Your task to perform on an android device: read, delete, or share a saved page in the chrome app Image 0: 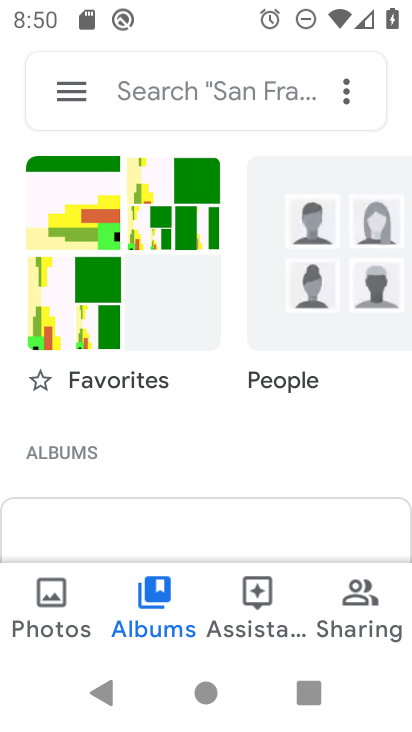
Step 0: press home button
Your task to perform on an android device: read, delete, or share a saved page in the chrome app Image 1: 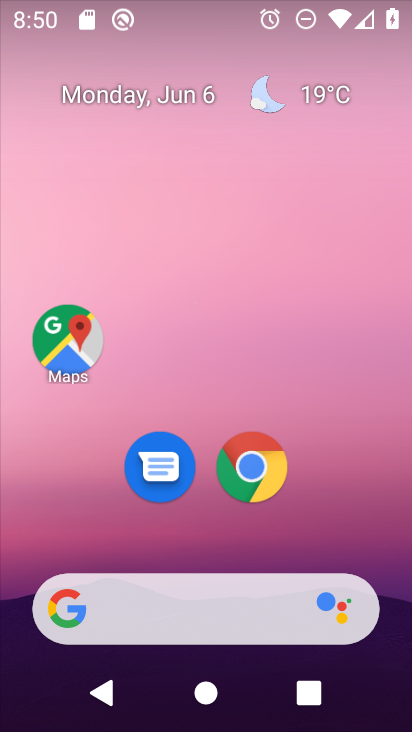
Step 1: drag from (358, 532) to (353, 136)
Your task to perform on an android device: read, delete, or share a saved page in the chrome app Image 2: 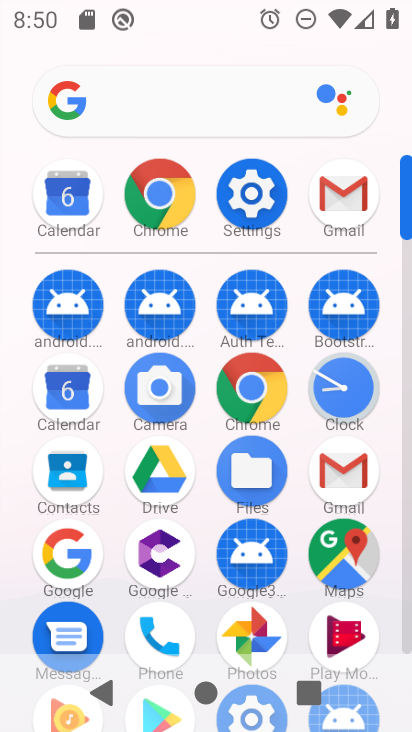
Step 2: click (265, 398)
Your task to perform on an android device: read, delete, or share a saved page in the chrome app Image 3: 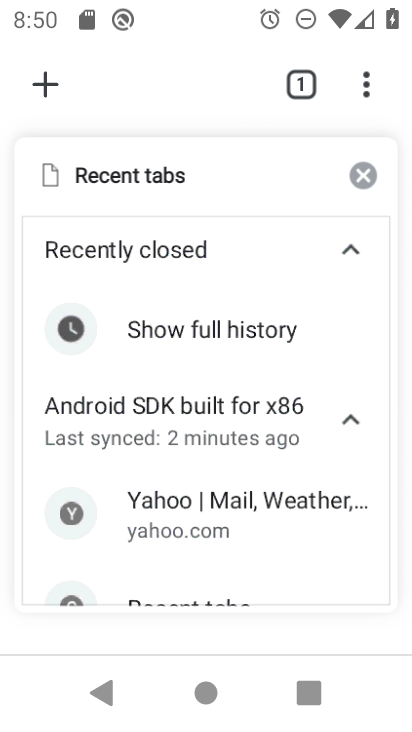
Step 3: press back button
Your task to perform on an android device: read, delete, or share a saved page in the chrome app Image 4: 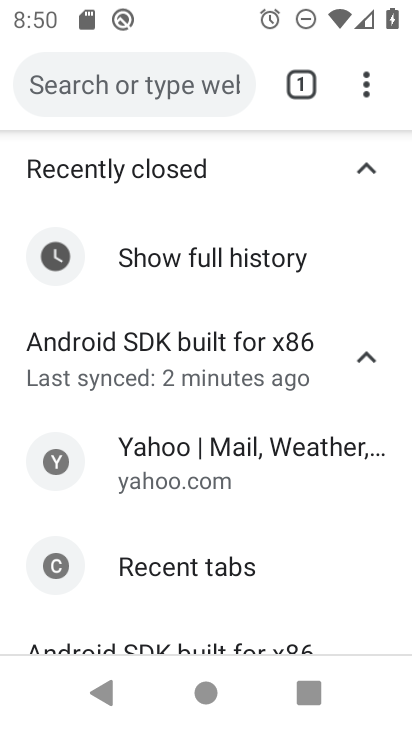
Step 4: click (367, 92)
Your task to perform on an android device: read, delete, or share a saved page in the chrome app Image 5: 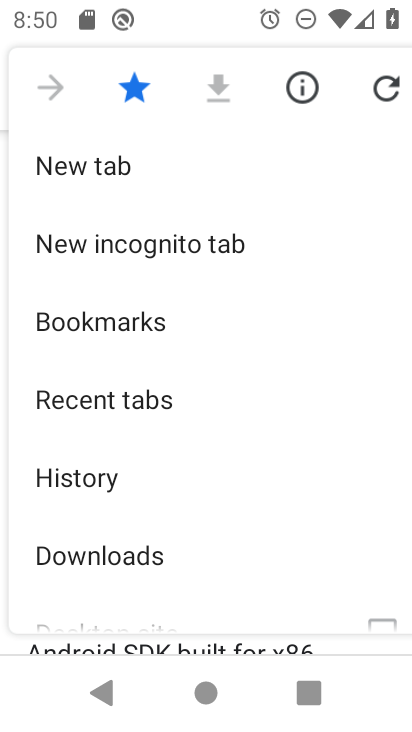
Step 5: drag from (351, 468) to (349, 354)
Your task to perform on an android device: read, delete, or share a saved page in the chrome app Image 6: 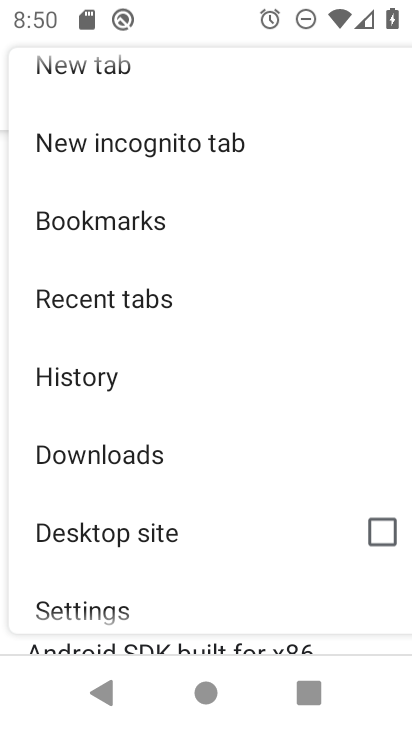
Step 6: drag from (312, 527) to (300, 414)
Your task to perform on an android device: read, delete, or share a saved page in the chrome app Image 7: 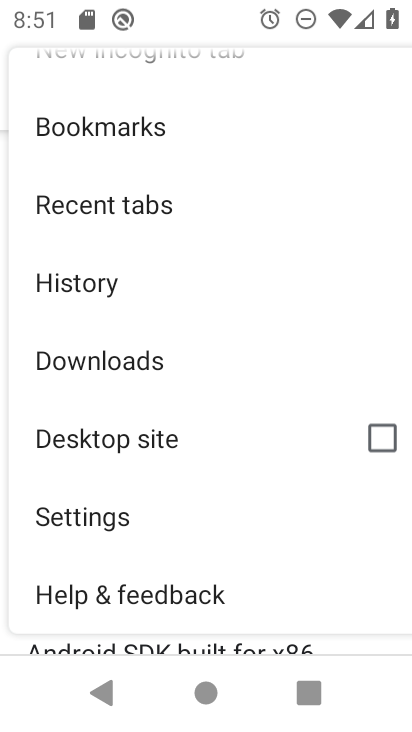
Step 7: drag from (290, 511) to (279, 391)
Your task to perform on an android device: read, delete, or share a saved page in the chrome app Image 8: 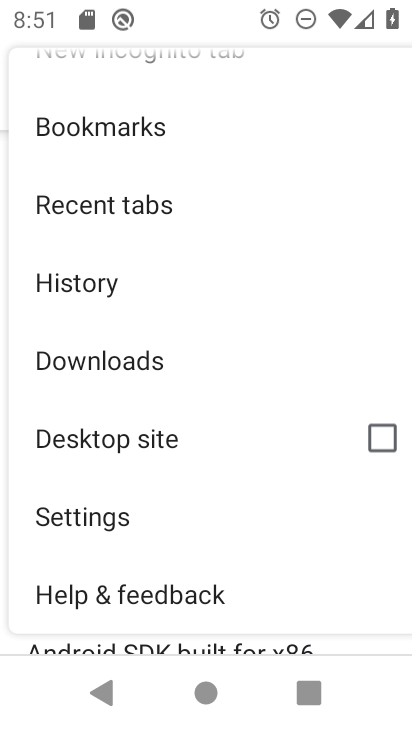
Step 8: click (183, 365)
Your task to perform on an android device: read, delete, or share a saved page in the chrome app Image 9: 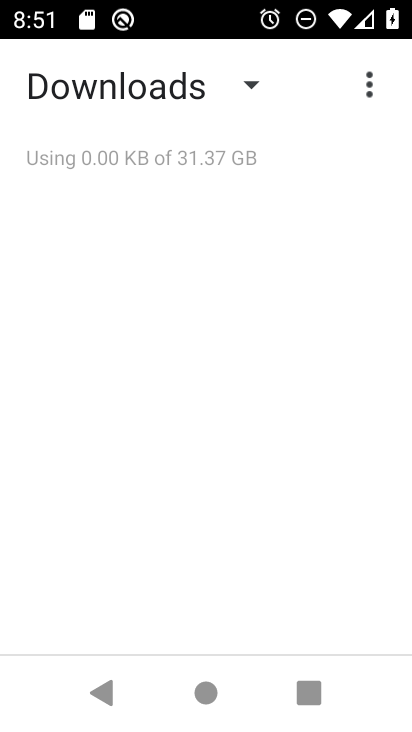
Step 9: click (248, 79)
Your task to perform on an android device: read, delete, or share a saved page in the chrome app Image 10: 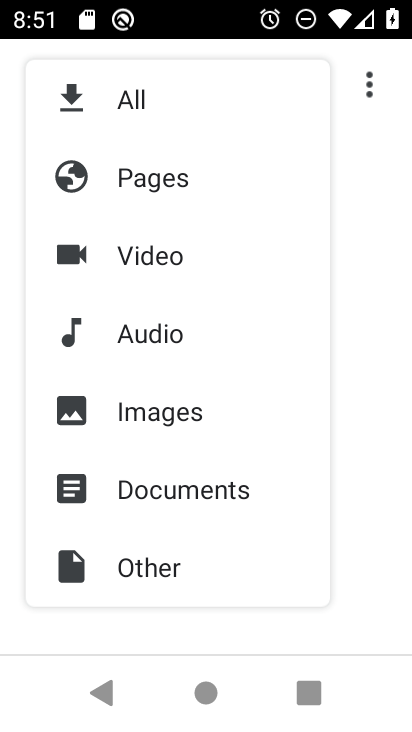
Step 10: click (178, 162)
Your task to perform on an android device: read, delete, or share a saved page in the chrome app Image 11: 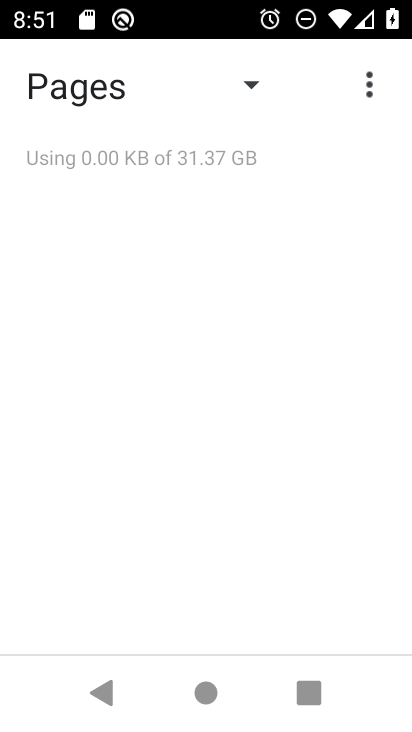
Step 11: task complete